Your task to perform on an android device: Search for Italian restaurants on Maps Image 0: 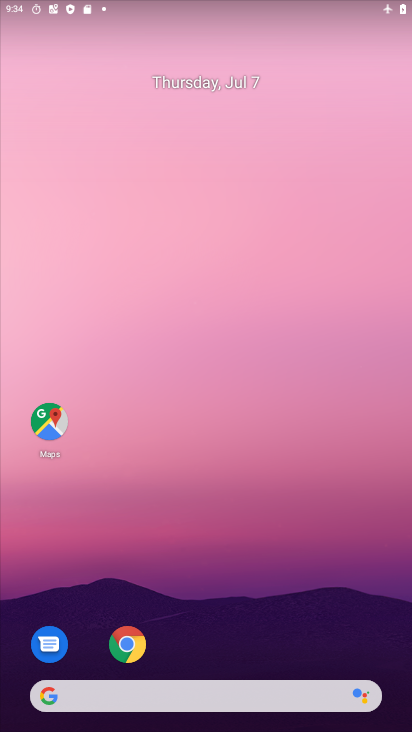
Step 0: drag from (314, 568) to (250, 75)
Your task to perform on an android device: Search for Italian restaurants on Maps Image 1: 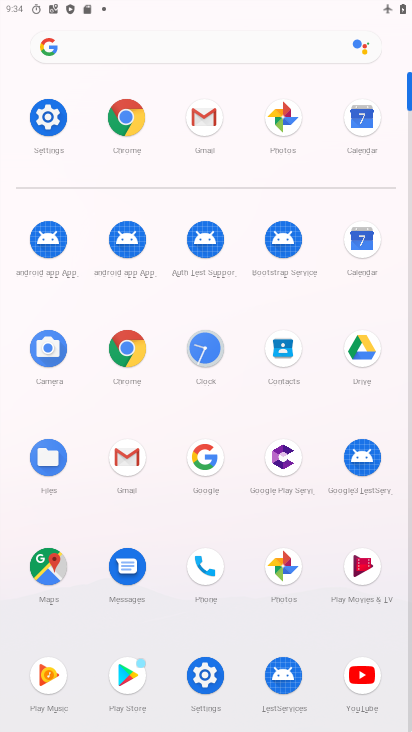
Step 1: click (49, 559)
Your task to perform on an android device: Search for Italian restaurants on Maps Image 2: 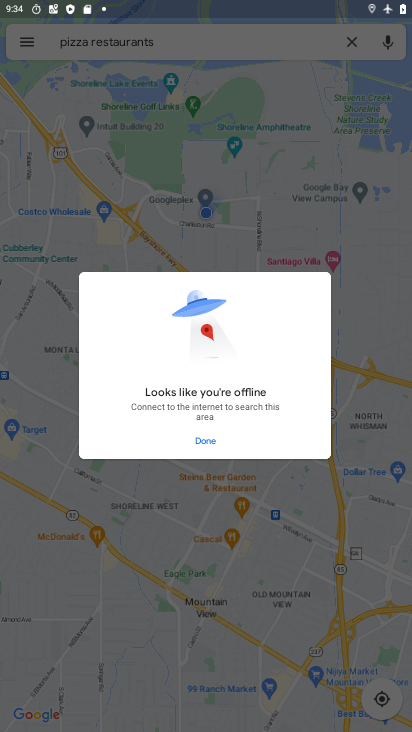
Step 2: click (213, 440)
Your task to perform on an android device: Search for Italian restaurants on Maps Image 3: 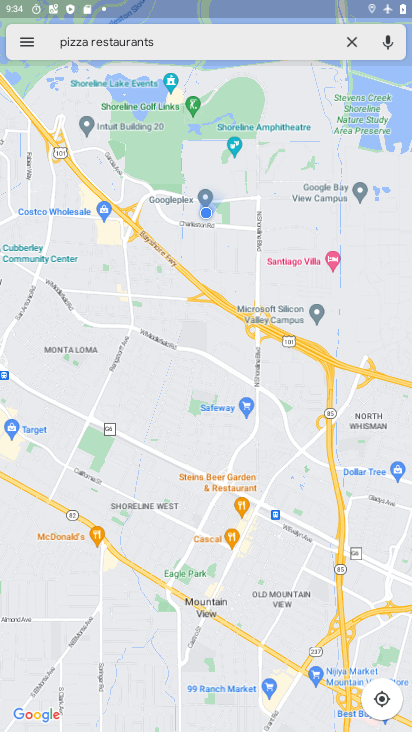
Step 3: click (219, 43)
Your task to perform on an android device: Search for Italian restaurants on Maps Image 4: 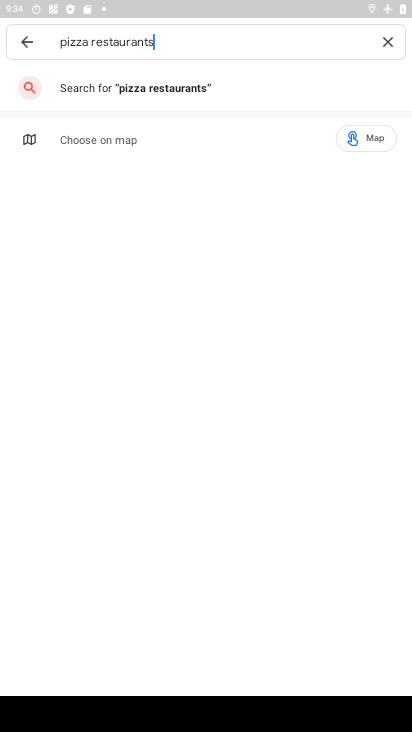
Step 4: click (386, 41)
Your task to perform on an android device: Search for Italian restaurants on Maps Image 5: 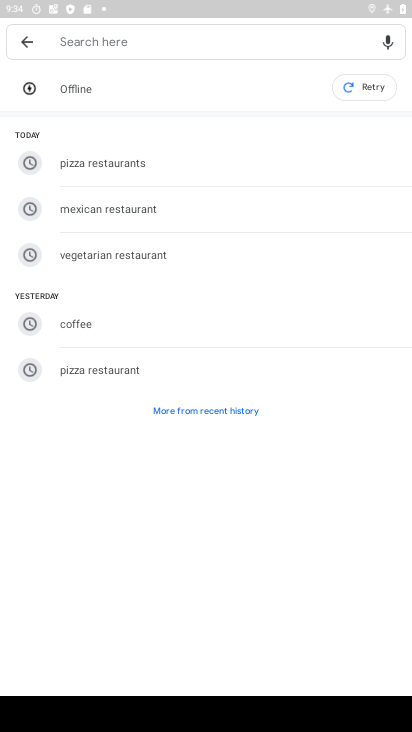
Step 5: type "Italian restaurants"
Your task to perform on an android device: Search for Italian restaurants on Maps Image 6: 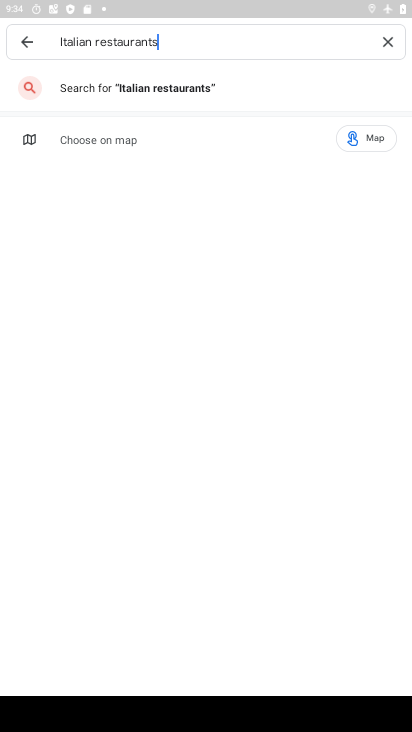
Step 6: press enter
Your task to perform on an android device: Search for Italian restaurants on Maps Image 7: 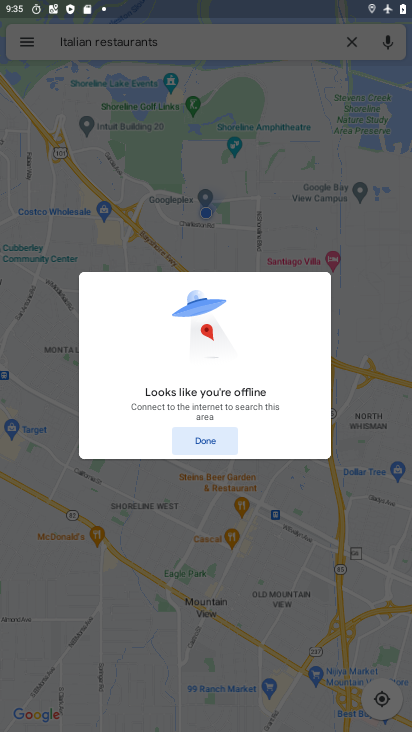
Step 7: task complete